Your task to perform on an android device: find which apps use the phone's location Image 0: 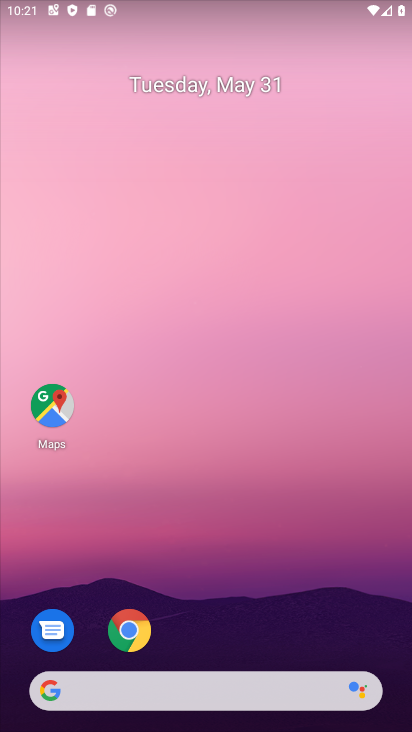
Step 0: press home button
Your task to perform on an android device: find which apps use the phone's location Image 1: 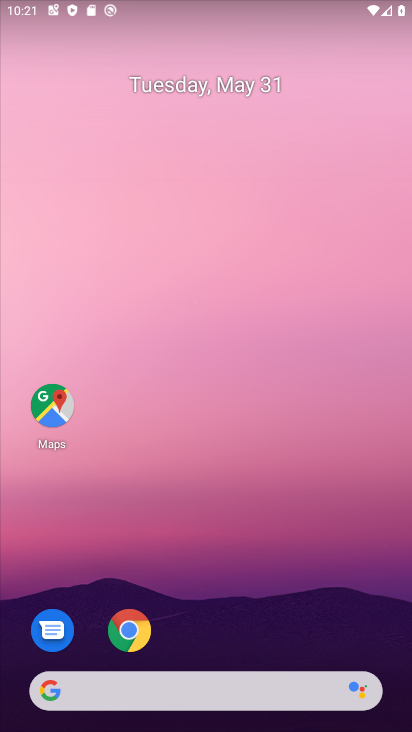
Step 1: drag from (356, 574) to (334, 197)
Your task to perform on an android device: find which apps use the phone's location Image 2: 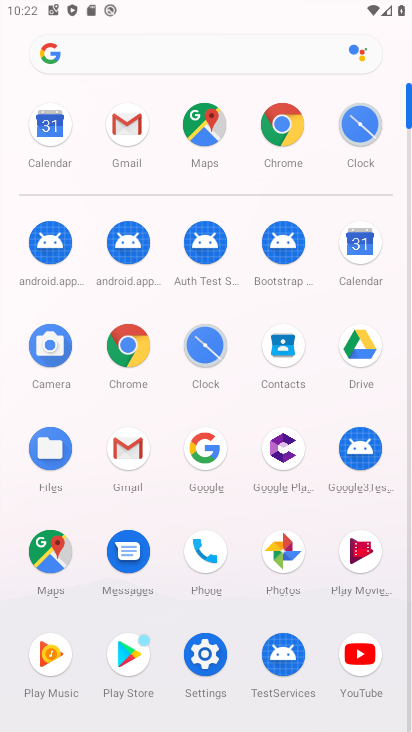
Step 2: click (196, 659)
Your task to perform on an android device: find which apps use the phone's location Image 3: 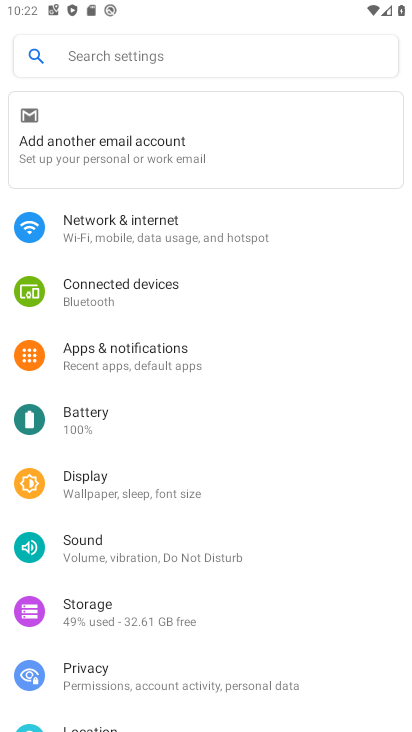
Step 3: drag from (340, 663) to (299, 370)
Your task to perform on an android device: find which apps use the phone's location Image 4: 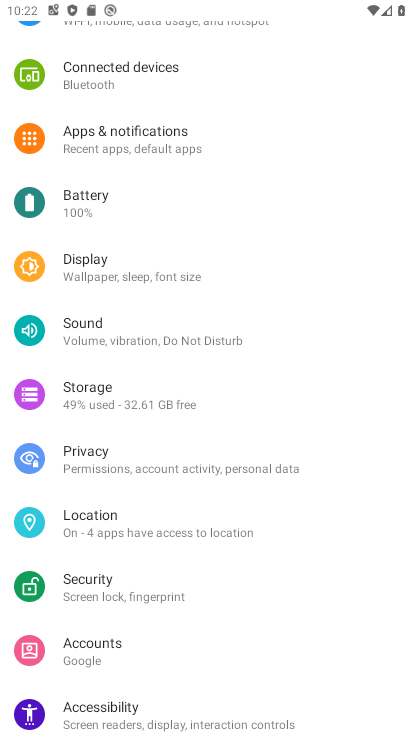
Step 4: click (220, 532)
Your task to perform on an android device: find which apps use the phone's location Image 5: 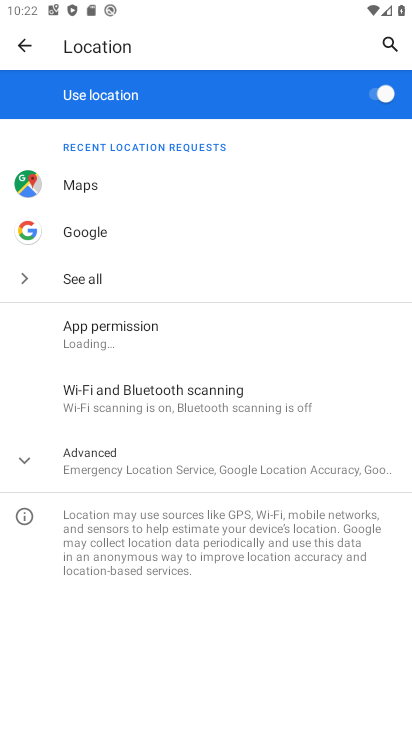
Step 5: click (104, 336)
Your task to perform on an android device: find which apps use the phone's location Image 6: 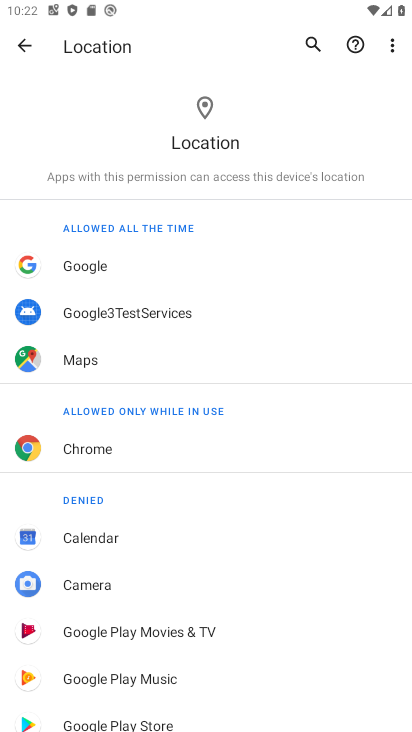
Step 6: task complete